Your task to perform on an android device: toggle javascript in the chrome app Image 0: 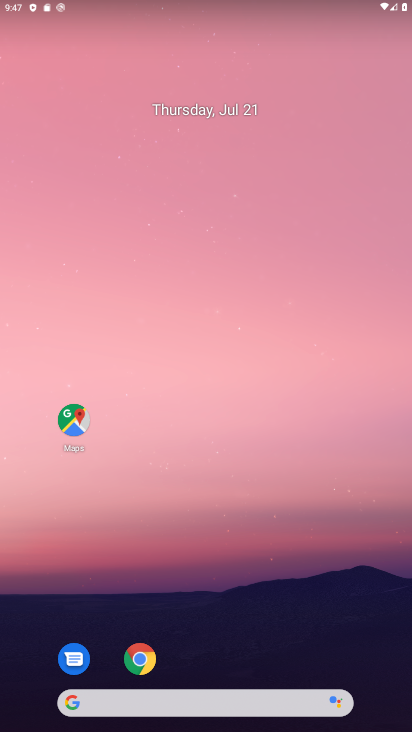
Step 0: click (136, 653)
Your task to perform on an android device: toggle javascript in the chrome app Image 1: 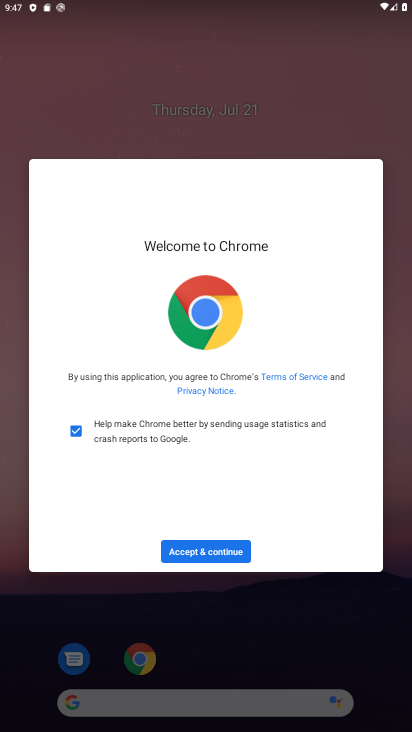
Step 1: click (197, 543)
Your task to perform on an android device: toggle javascript in the chrome app Image 2: 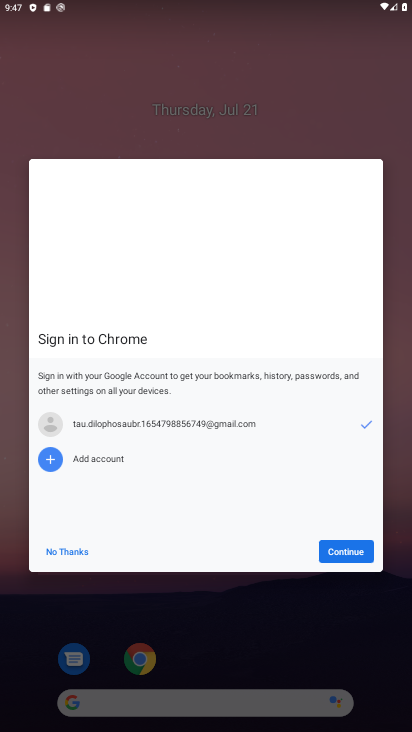
Step 2: click (341, 554)
Your task to perform on an android device: toggle javascript in the chrome app Image 3: 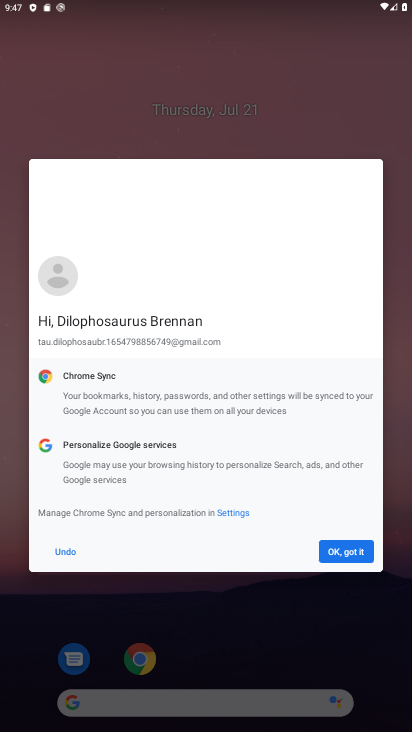
Step 3: click (341, 553)
Your task to perform on an android device: toggle javascript in the chrome app Image 4: 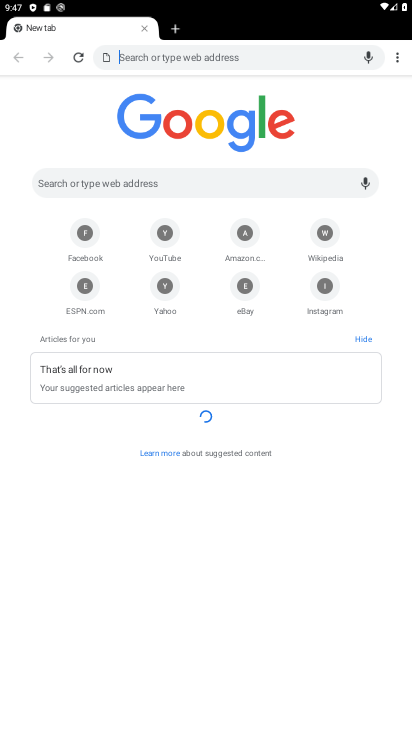
Step 4: click (397, 54)
Your task to perform on an android device: toggle javascript in the chrome app Image 5: 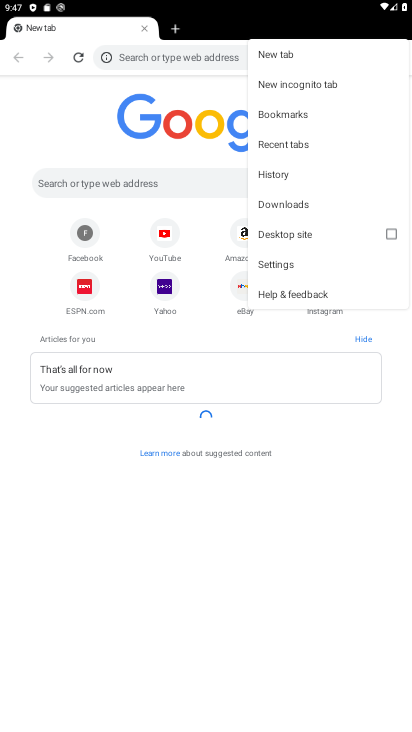
Step 5: click (277, 266)
Your task to perform on an android device: toggle javascript in the chrome app Image 6: 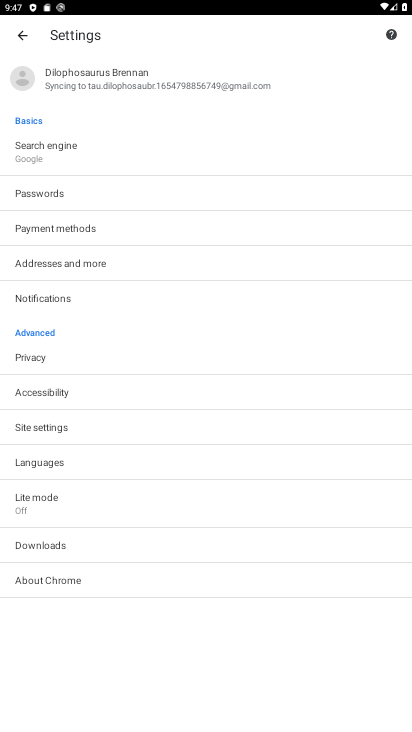
Step 6: click (20, 427)
Your task to perform on an android device: toggle javascript in the chrome app Image 7: 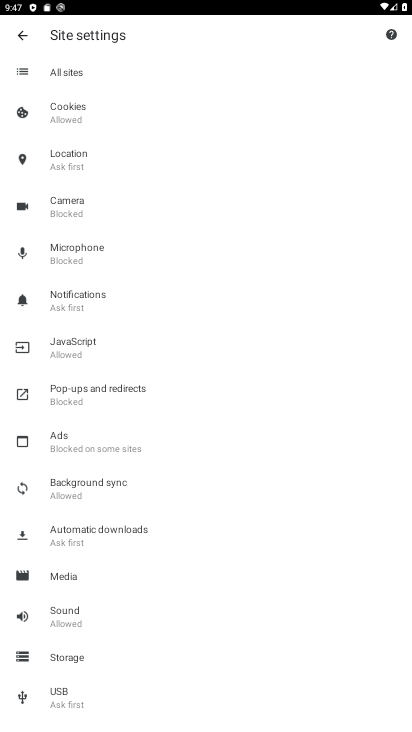
Step 7: click (77, 353)
Your task to perform on an android device: toggle javascript in the chrome app Image 8: 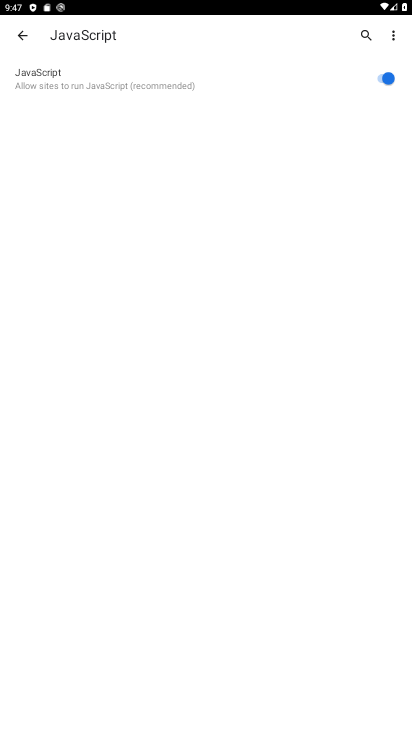
Step 8: click (380, 80)
Your task to perform on an android device: toggle javascript in the chrome app Image 9: 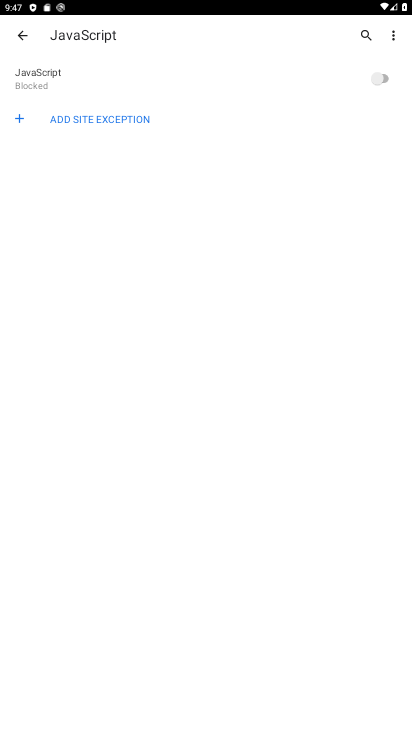
Step 9: task complete